Your task to perform on an android device: Open sound settings Image 0: 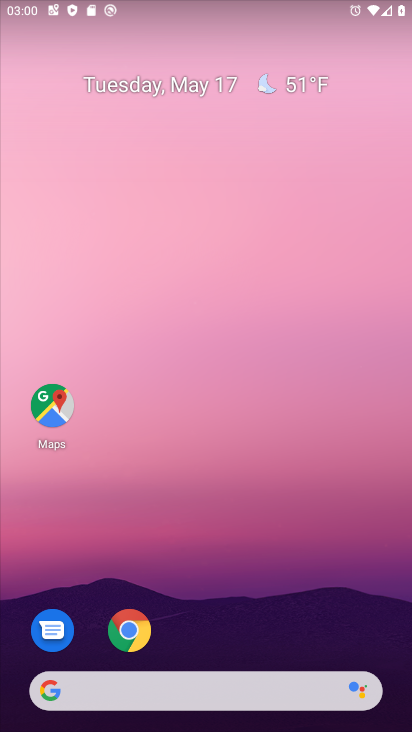
Step 0: drag from (258, 551) to (343, 28)
Your task to perform on an android device: Open sound settings Image 1: 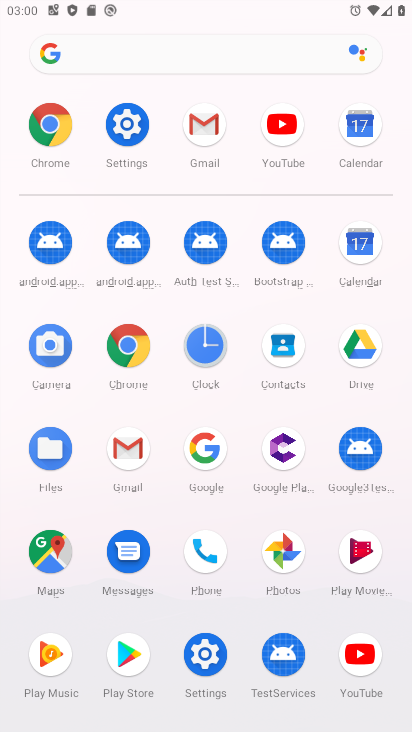
Step 1: click (111, 130)
Your task to perform on an android device: Open sound settings Image 2: 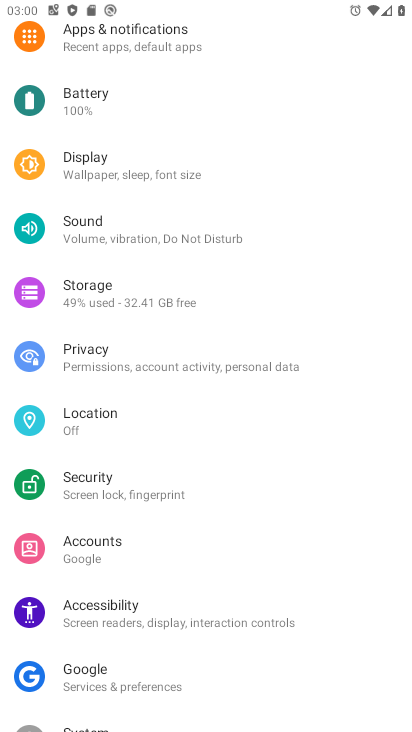
Step 2: click (96, 234)
Your task to perform on an android device: Open sound settings Image 3: 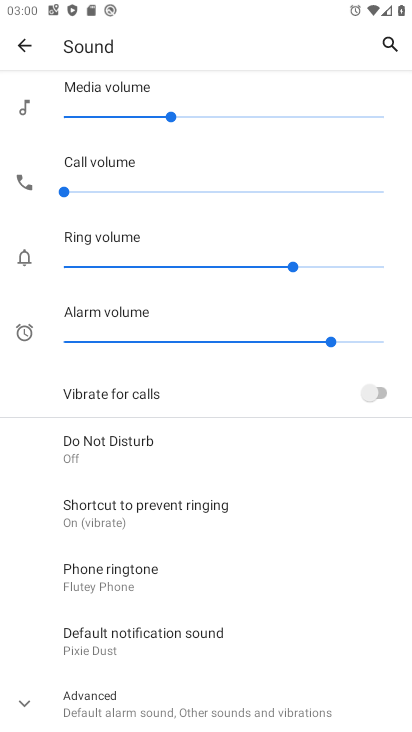
Step 3: task complete